Your task to perform on an android device: open app "Life360: Find Family & Friends" Image 0: 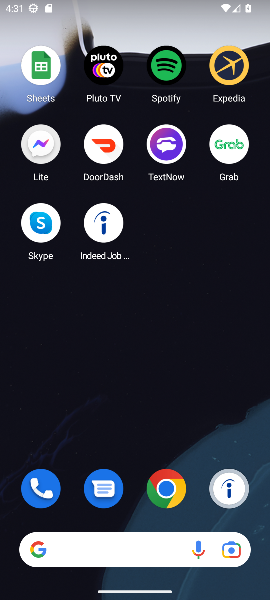
Step 0: drag from (134, 519) to (150, 3)
Your task to perform on an android device: open app "Life360: Find Family & Friends" Image 1: 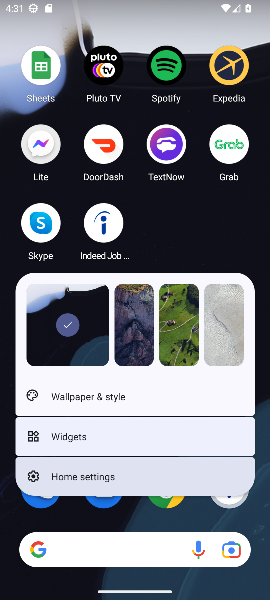
Step 1: click (185, 210)
Your task to perform on an android device: open app "Life360: Find Family & Friends" Image 2: 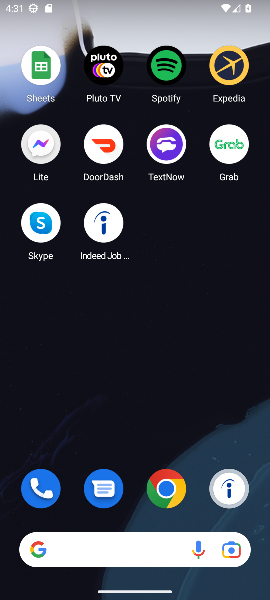
Step 2: drag from (133, 519) to (157, 26)
Your task to perform on an android device: open app "Life360: Find Family & Friends" Image 3: 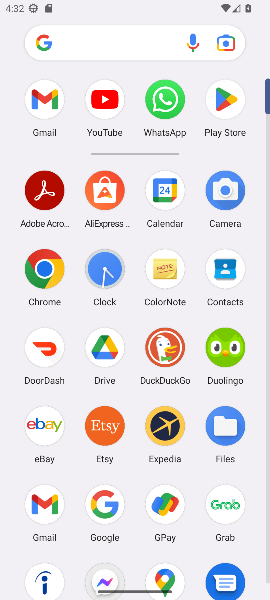
Step 3: click (224, 106)
Your task to perform on an android device: open app "Life360: Find Family & Friends" Image 4: 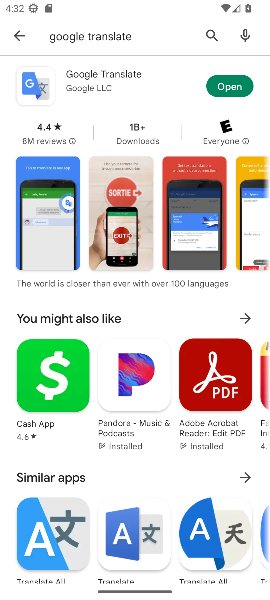
Step 4: click (214, 37)
Your task to perform on an android device: open app "Life360: Find Family & Friends" Image 5: 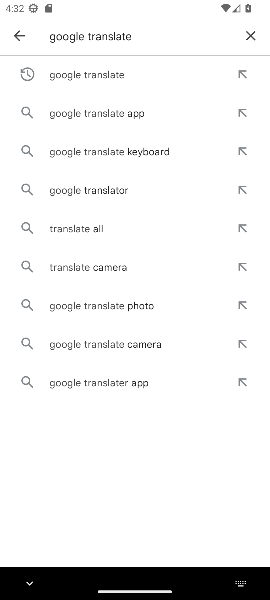
Step 5: click (250, 40)
Your task to perform on an android device: open app "Life360: Find Family & Friends" Image 6: 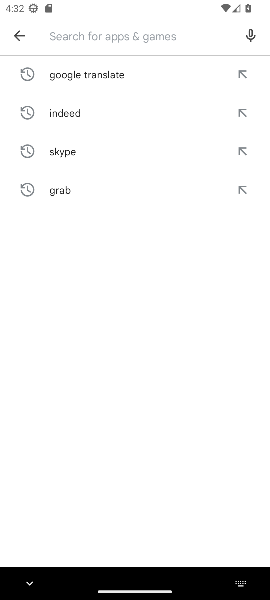
Step 6: type "life 360"
Your task to perform on an android device: open app "Life360: Find Family & Friends" Image 7: 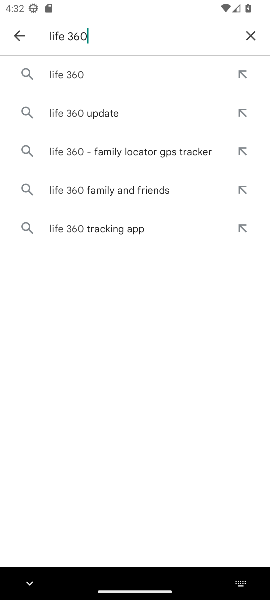
Step 7: click (146, 72)
Your task to perform on an android device: open app "Life360: Find Family & Friends" Image 8: 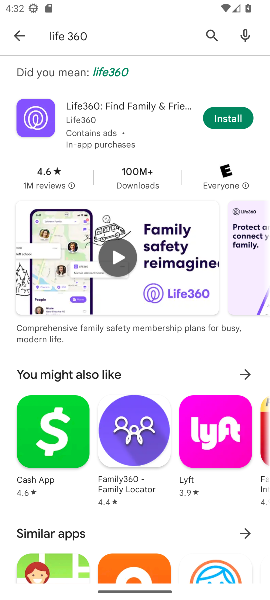
Step 8: click (240, 128)
Your task to perform on an android device: open app "Life360: Find Family & Friends" Image 9: 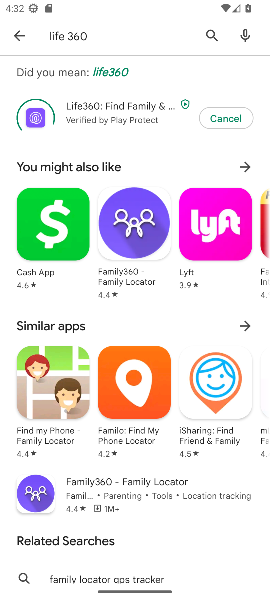
Step 9: task complete